Your task to perform on an android device: Search for Italian restaurants on Maps Image 0: 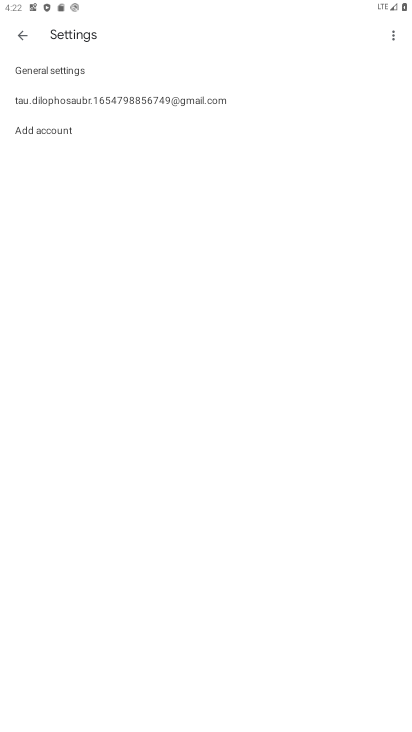
Step 0: press home button
Your task to perform on an android device: Search for Italian restaurants on Maps Image 1: 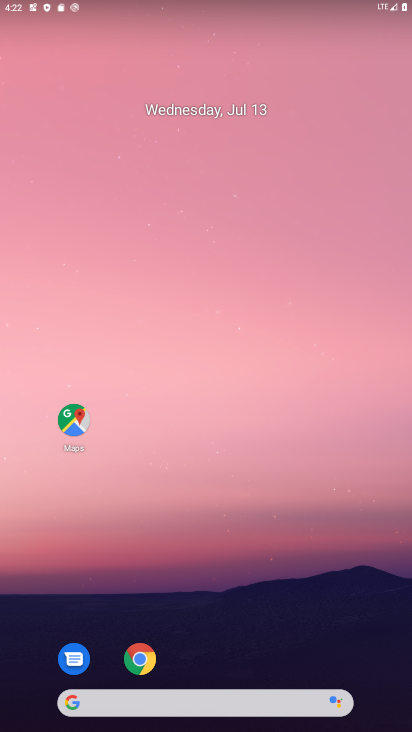
Step 1: click (67, 415)
Your task to perform on an android device: Search for Italian restaurants on Maps Image 2: 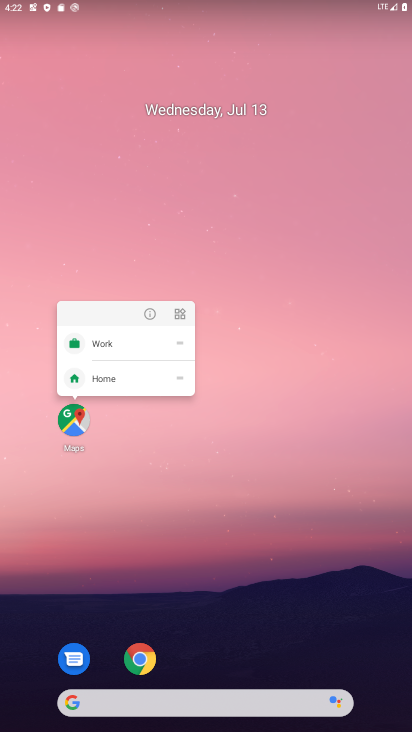
Step 2: click (71, 418)
Your task to perform on an android device: Search for Italian restaurants on Maps Image 3: 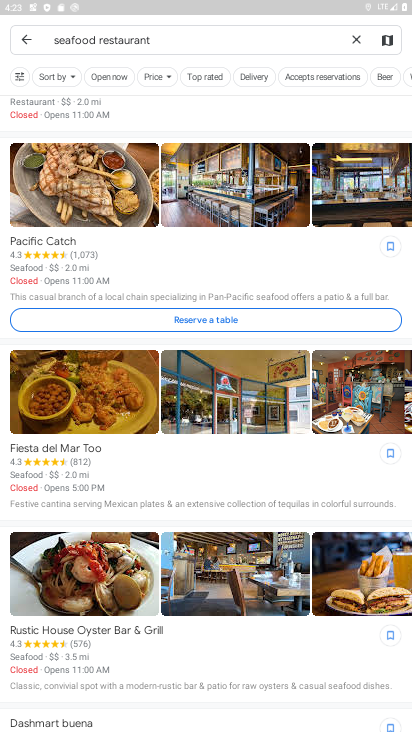
Step 3: click (354, 41)
Your task to perform on an android device: Search for Italian restaurants on Maps Image 4: 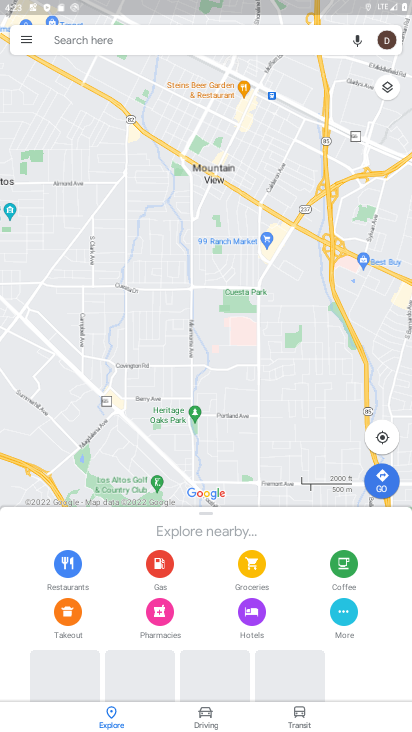
Step 4: click (193, 39)
Your task to perform on an android device: Search for Italian restaurants on Maps Image 5: 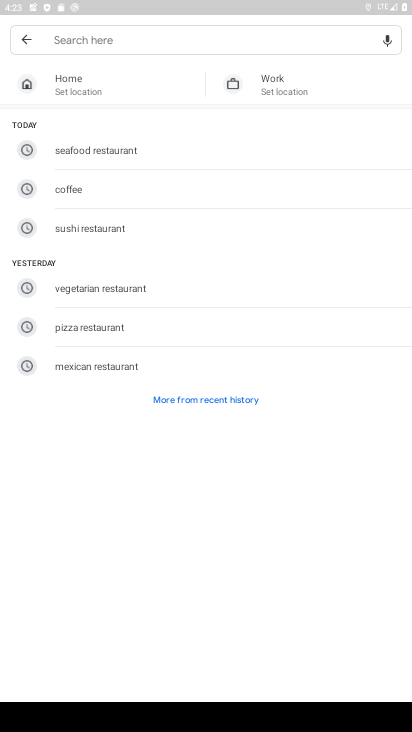
Step 5: type "italian"
Your task to perform on an android device: Search for Italian restaurants on Maps Image 6: 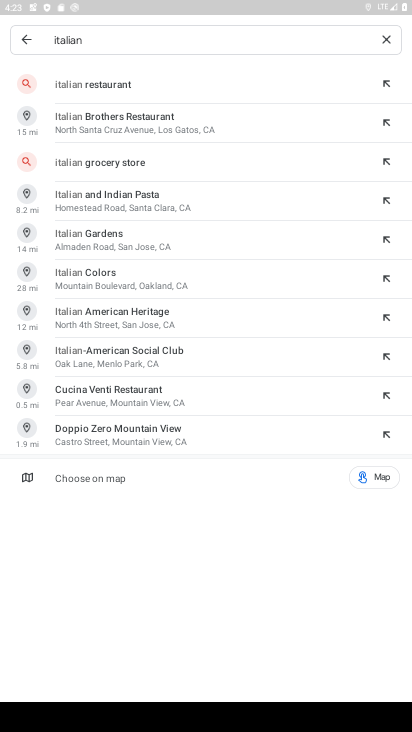
Step 6: click (113, 89)
Your task to perform on an android device: Search for Italian restaurants on Maps Image 7: 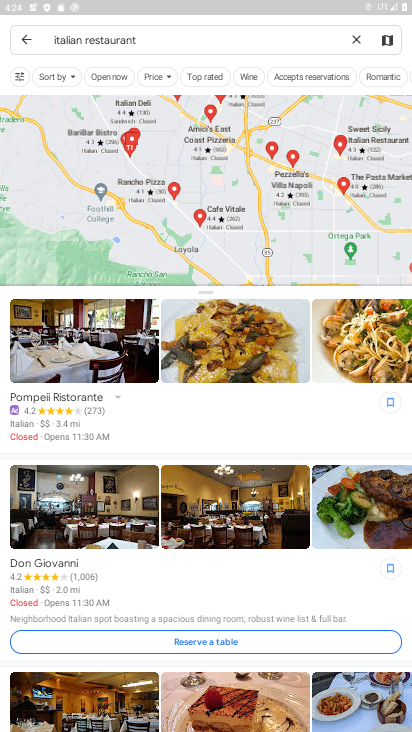
Step 7: task complete